Your task to perform on an android device: turn off translation in the chrome app Image 0: 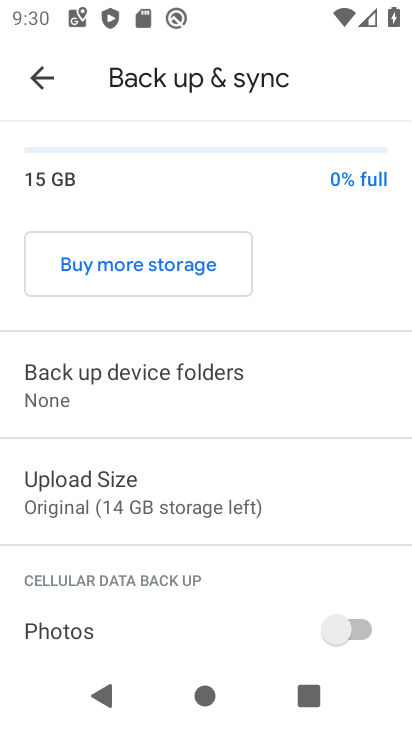
Step 0: press home button
Your task to perform on an android device: turn off translation in the chrome app Image 1: 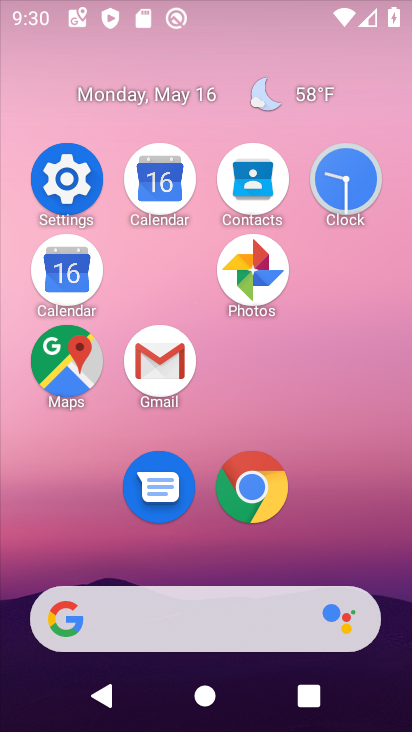
Step 1: click (269, 483)
Your task to perform on an android device: turn off translation in the chrome app Image 2: 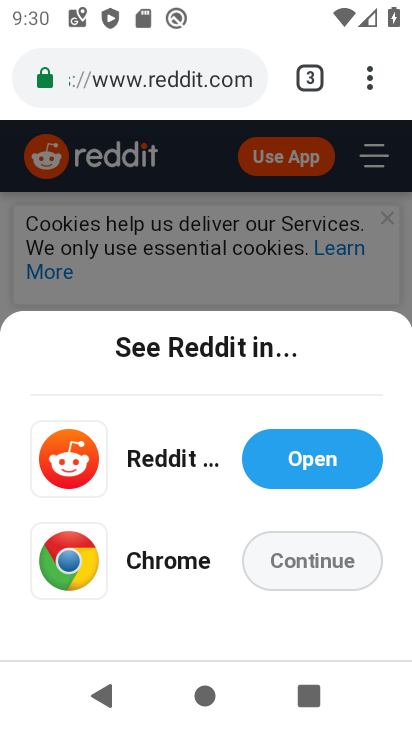
Step 2: click (361, 78)
Your task to perform on an android device: turn off translation in the chrome app Image 3: 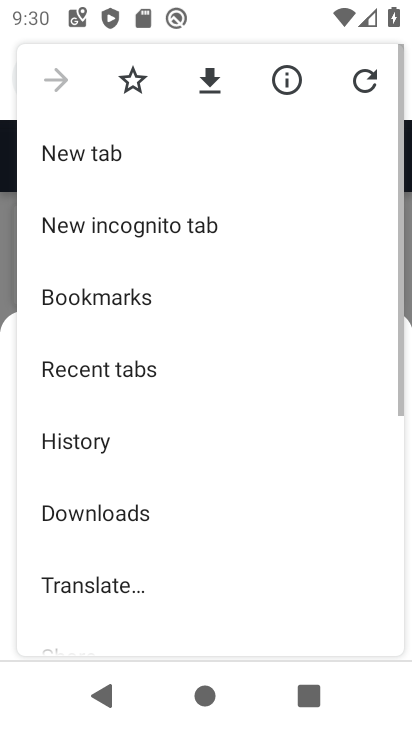
Step 3: drag from (253, 505) to (286, 109)
Your task to perform on an android device: turn off translation in the chrome app Image 4: 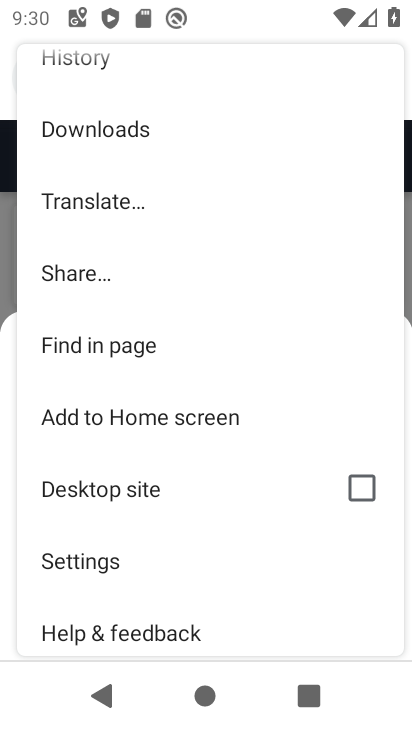
Step 4: click (106, 562)
Your task to perform on an android device: turn off translation in the chrome app Image 5: 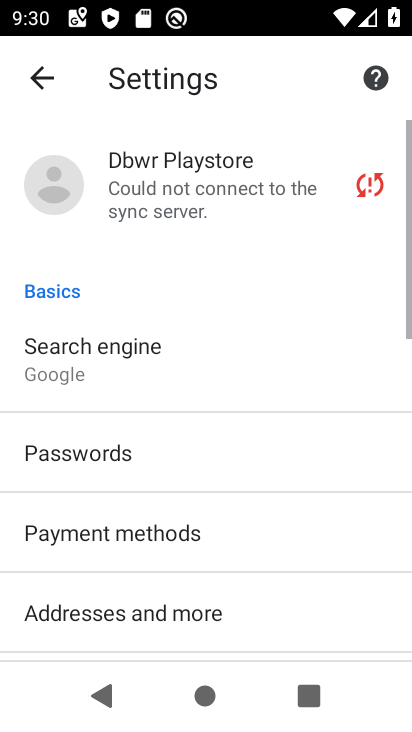
Step 5: drag from (194, 551) to (257, 174)
Your task to perform on an android device: turn off translation in the chrome app Image 6: 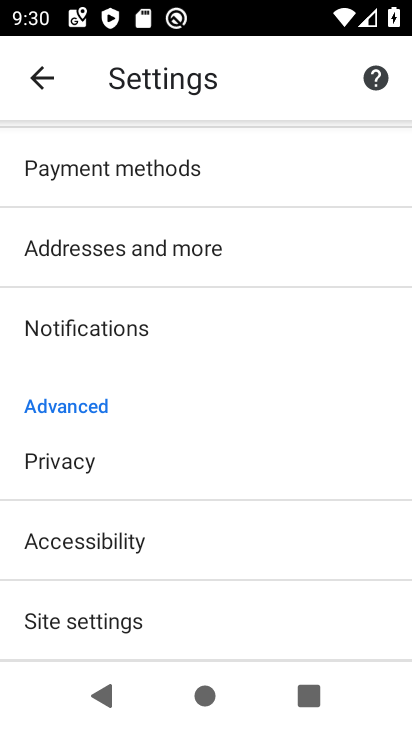
Step 6: drag from (149, 554) to (213, 224)
Your task to perform on an android device: turn off translation in the chrome app Image 7: 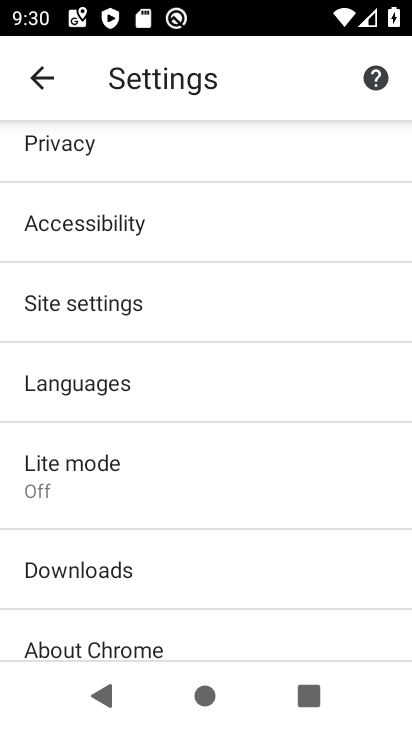
Step 7: click (191, 388)
Your task to perform on an android device: turn off translation in the chrome app Image 8: 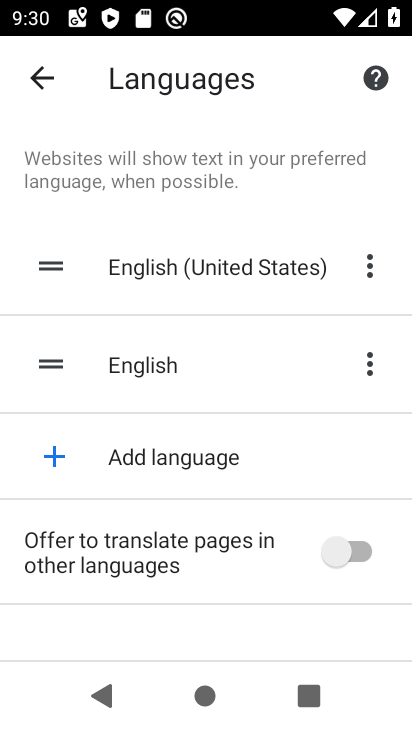
Step 8: task complete